Your task to perform on an android device: Check the news Image 0: 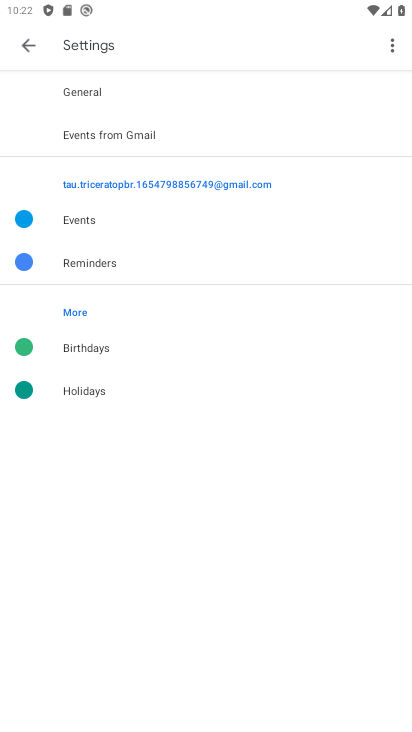
Step 0: press home button
Your task to perform on an android device: Check the news Image 1: 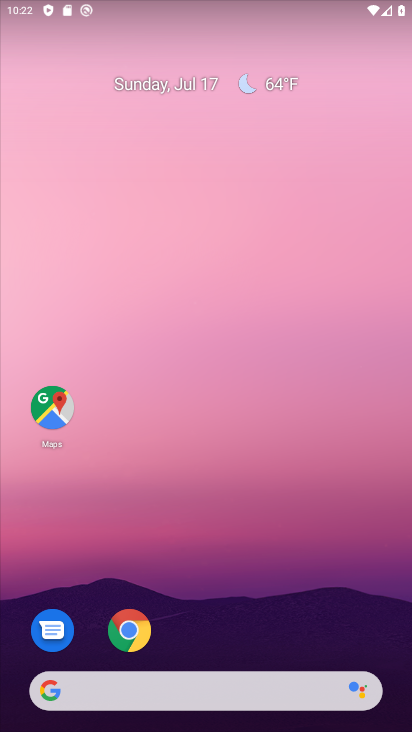
Step 1: task complete